Your task to perform on an android device: turn pop-ups on in chrome Image 0: 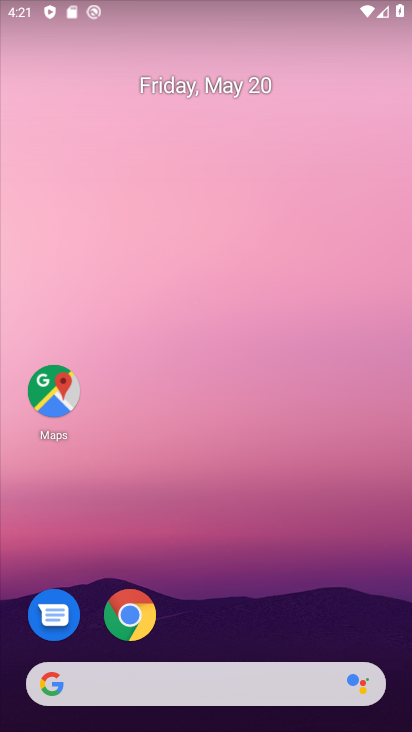
Step 0: click (136, 621)
Your task to perform on an android device: turn pop-ups on in chrome Image 1: 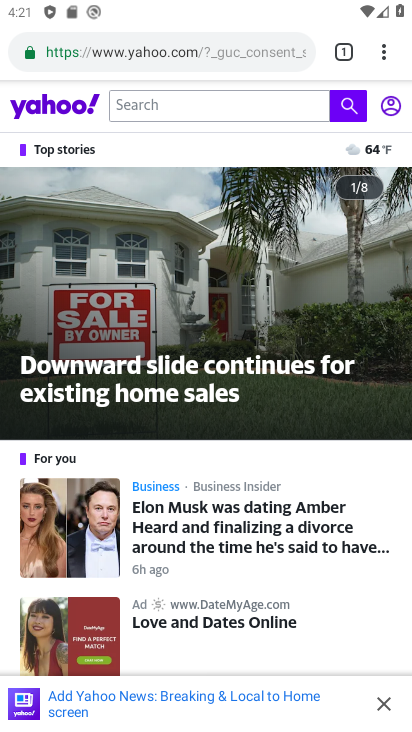
Step 1: click (383, 56)
Your task to perform on an android device: turn pop-ups on in chrome Image 2: 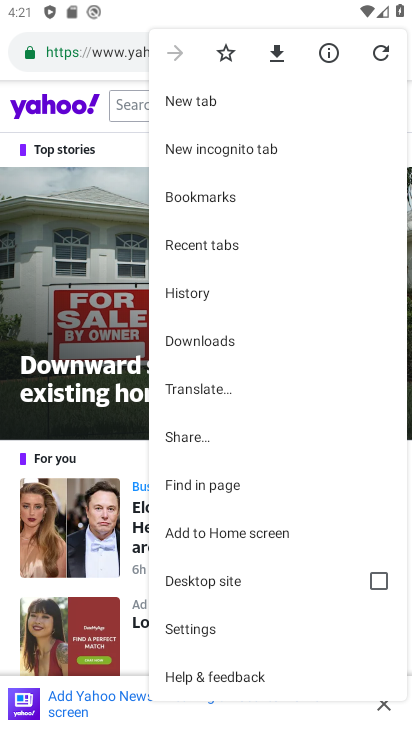
Step 2: drag from (223, 509) to (257, 286)
Your task to perform on an android device: turn pop-ups on in chrome Image 3: 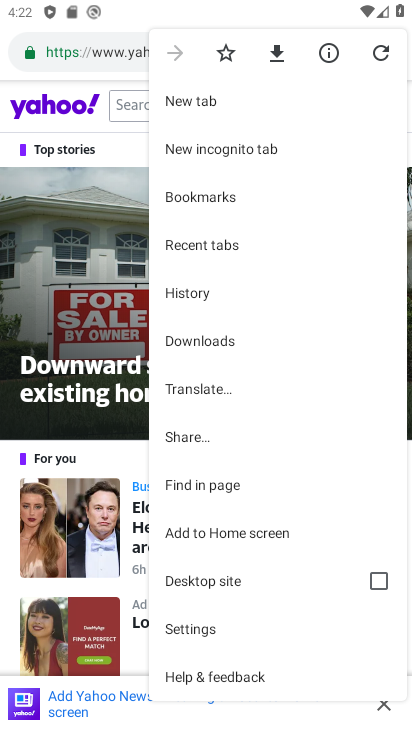
Step 3: click (203, 630)
Your task to perform on an android device: turn pop-ups on in chrome Image 4: 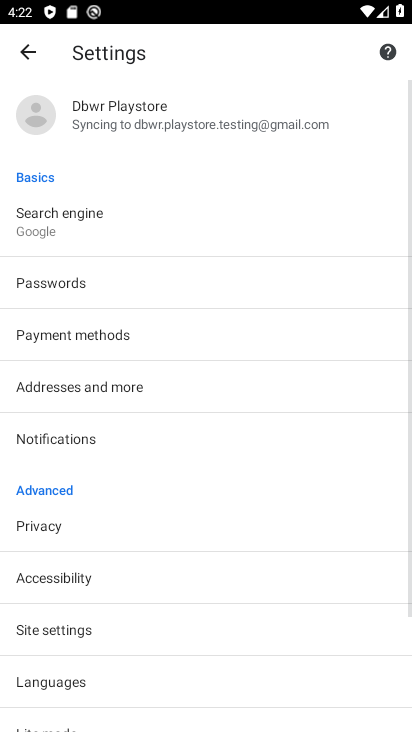
Step 4: drag from (186, 563) to (227, 247)
Your task to perform on an android device: turn pop-ups on in chrome Image 5: 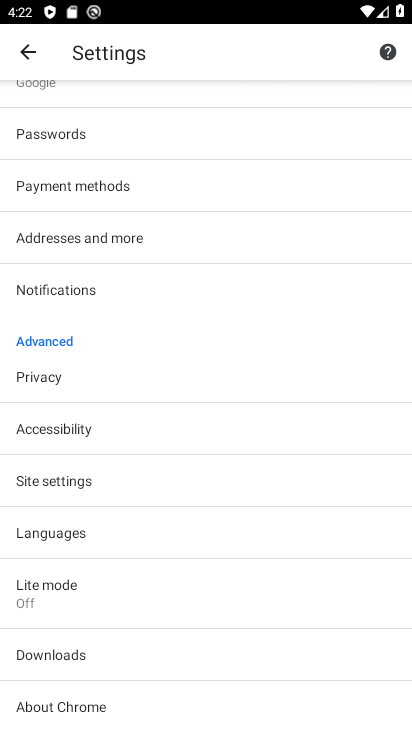
Step 5: click (98, 484)
Your task to perform on an android device: turn pop-ups on in chrome Image 6: 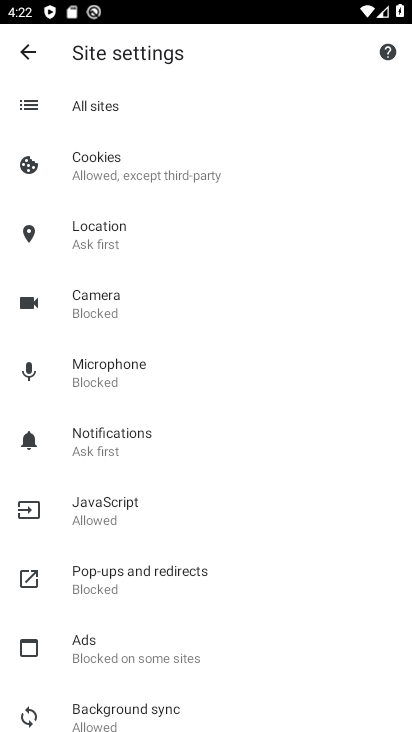
Step 6: click (133, 590)
Your task to perform on an android device: turn pop-ups on in chrome Image 7: 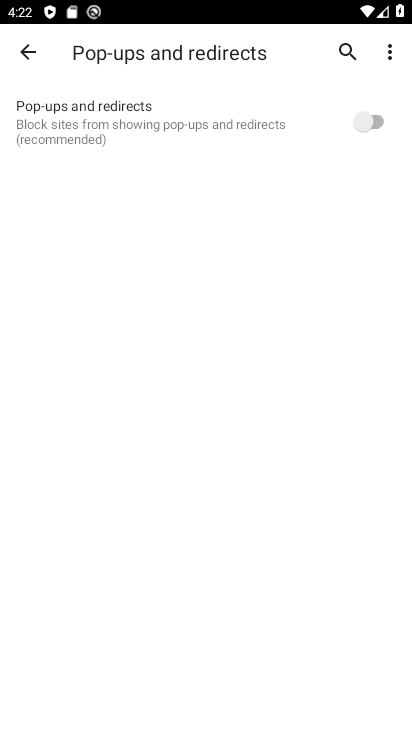
Step 7: click (377, 132)
Your task to perform on an android device: turn pop-ups on in chrome Image 8: 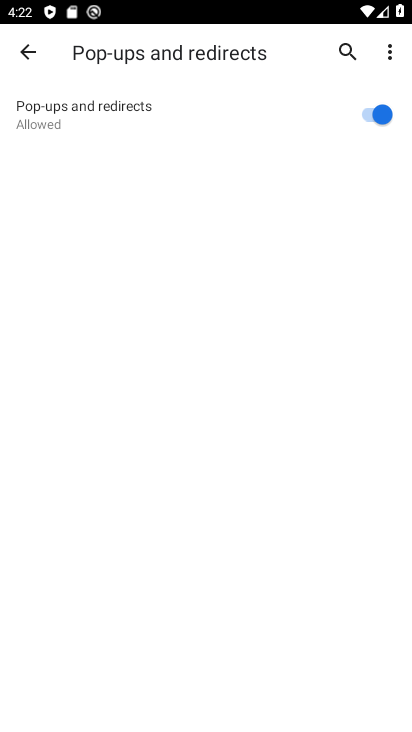
Step 8: task complete